Your task to perform on an android device: turn off airplane mode Image 0: 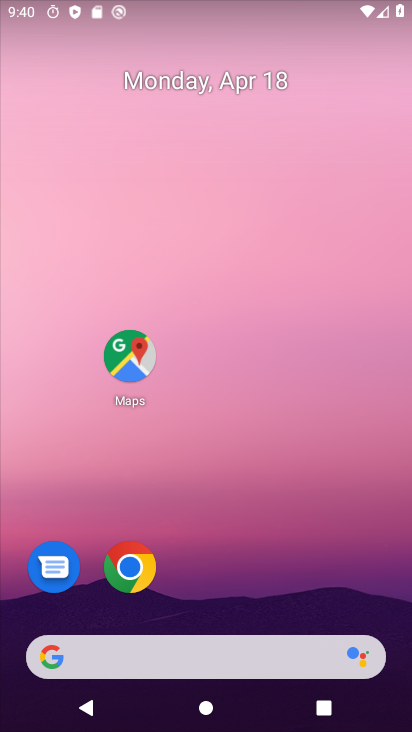
Step 0: click (222, 372)
Your task to perform on an android device: turn off airplane mode Image 1: 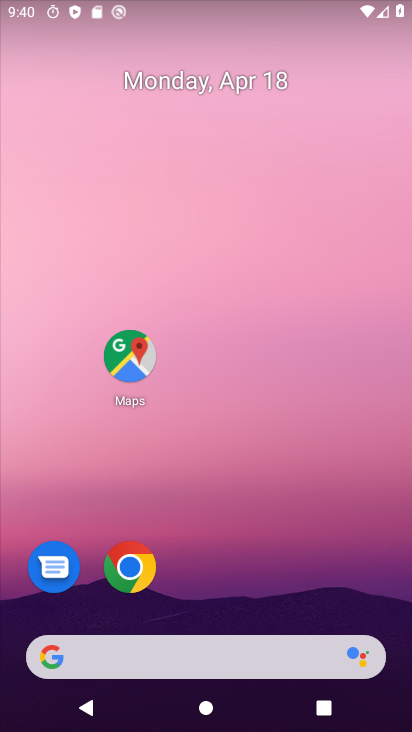
Step 1: drag from (260, 680) to (345, 191)
Your task to perform on an android device: turn off airplane mode Image 2: 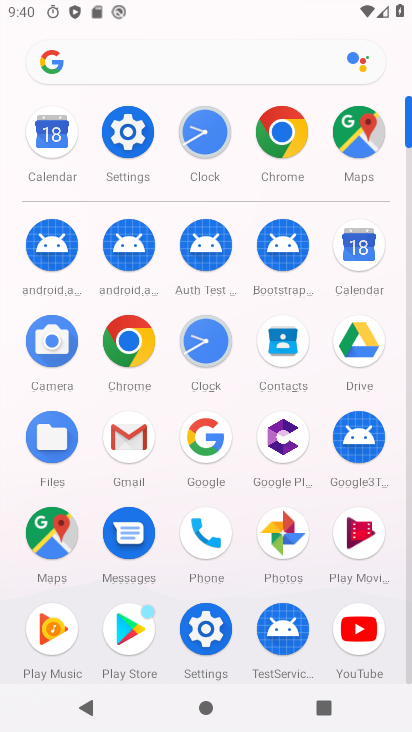
Step 2: click (130, 141)
Your task to perform on an android device: turn off airplane mode Image 3: 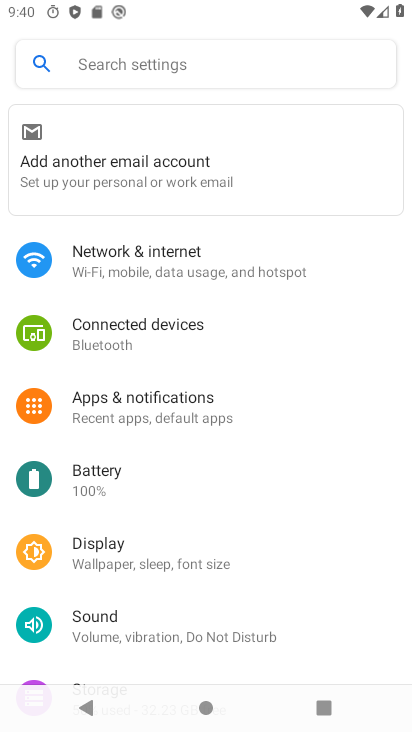
Step 3: click (95, 255)
Your task to perform on an android device: turn off airplane mode Image 4: 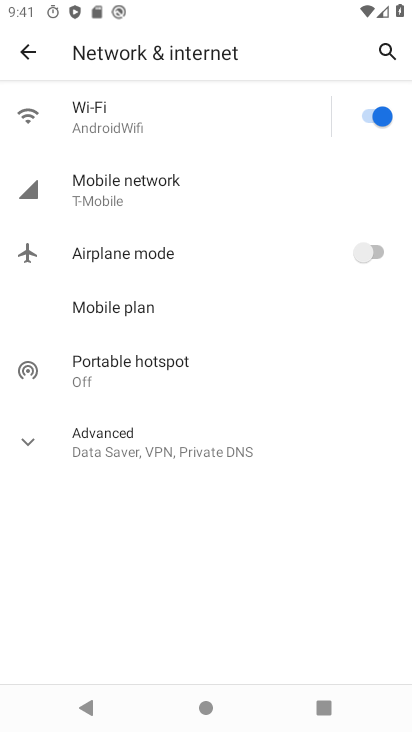
Step 4: click (283, 247)
Your task to perform on an android device: turn off airplane mode Image 5: 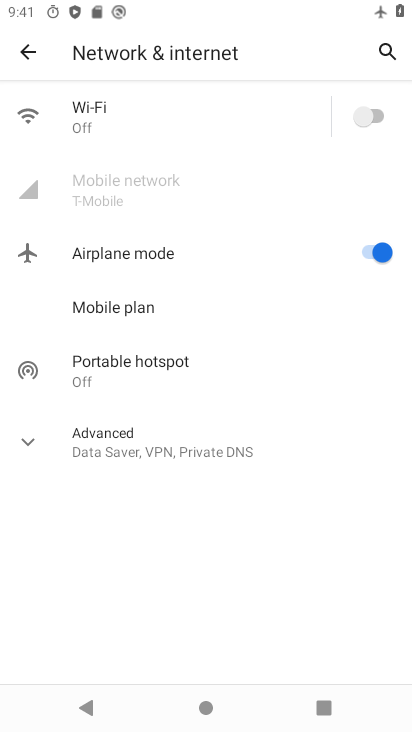
Step 5: click (378, 265)
Your task to perform on an android device: turn off airplane mode Image 6: 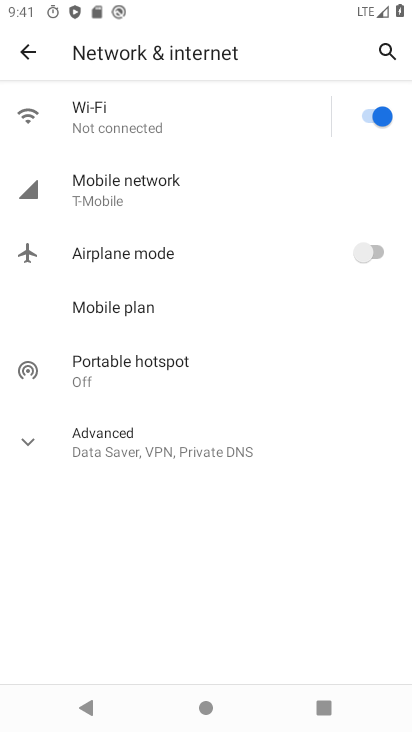
Step 6: task complete